Your task to perform on an android device: check data usage Image 0: 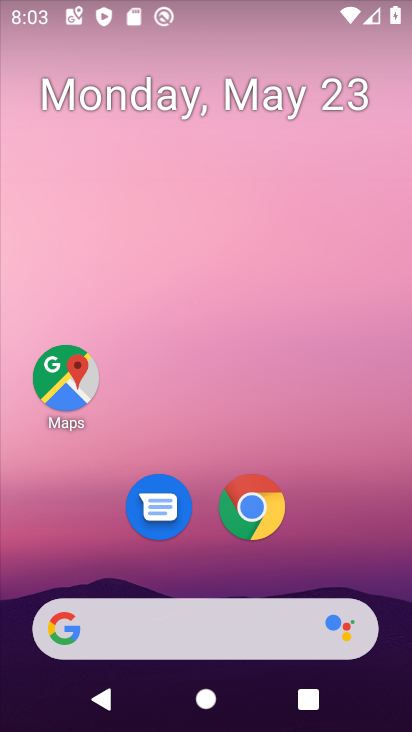
Step 0: drag from (368, 526) to (304, 172)
Your task to perform on an android device: check data usage Image 1: 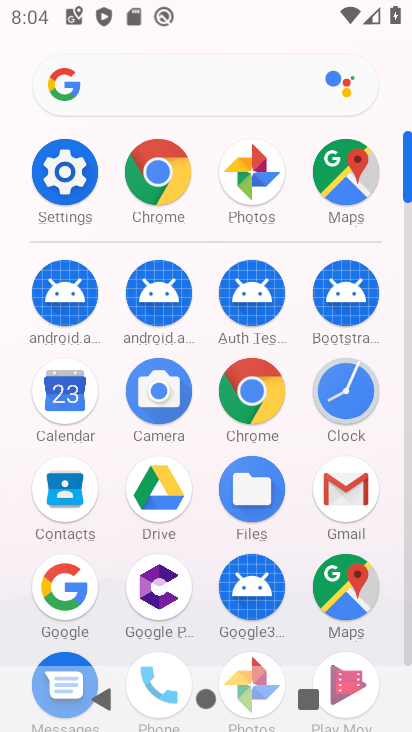
Step 1: click (40, 174)
Your task to perform on an android device: check data usage Image 2: 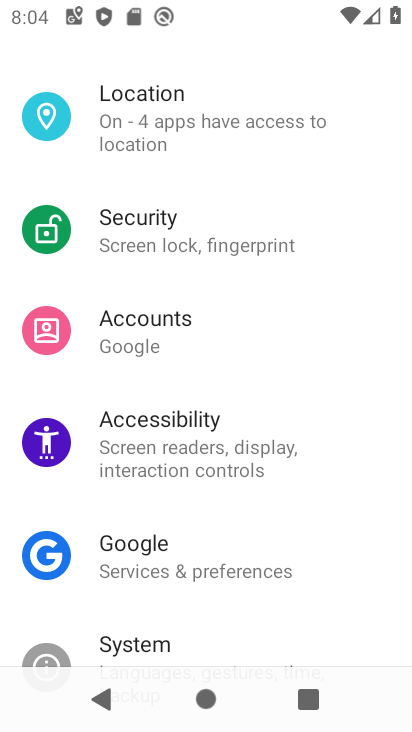
Step 2: drag from (247, 188) to (241, 581)
Your task to perform on an android device: check data usage Image 3: 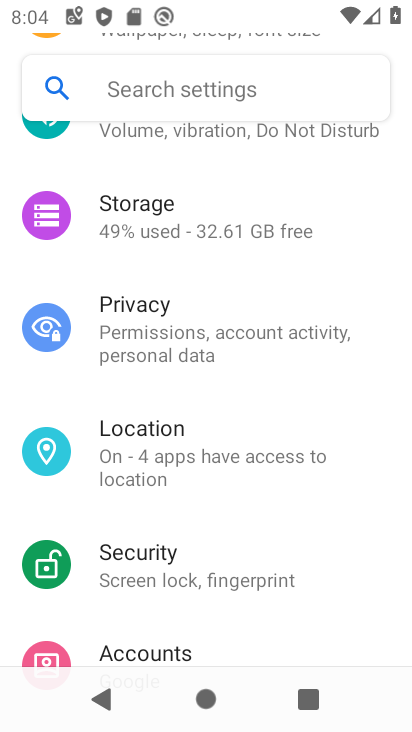
Step 3: drag from (225, 249) to (224, 574)
Your task to perform on an android device: check data usage Image 4: 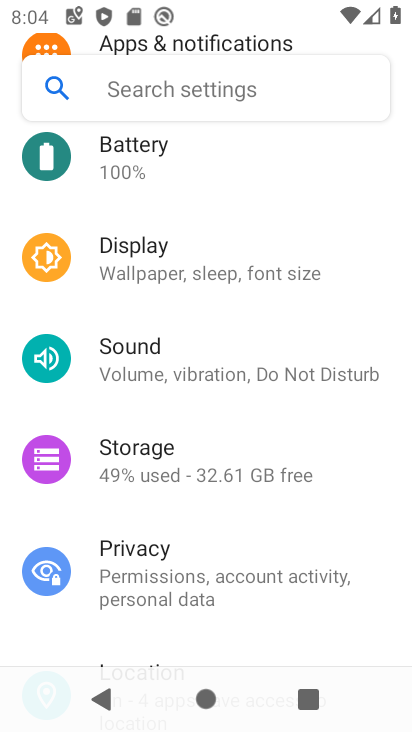
Step 4: drag from (252, 176) to (251, 579)
Your task to perform on an android device: check data usage Image 5: 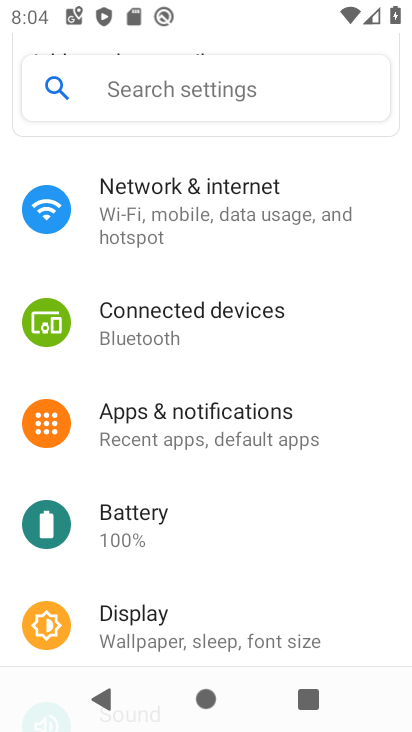
Step 5: click (241, 216)
Your task to perform on an android device: check data usage Image 6: 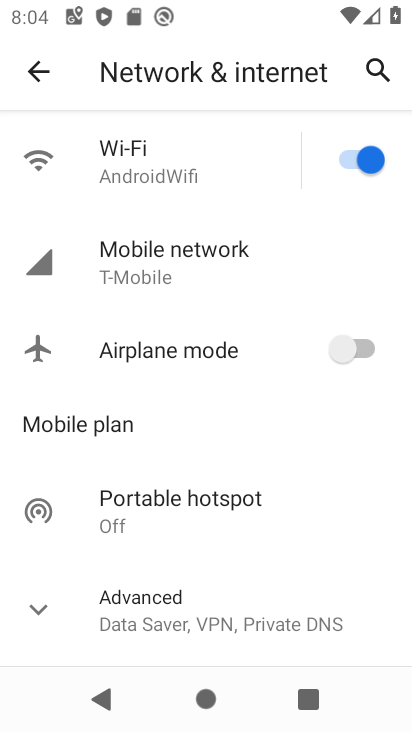
Step 6: click (207, 258)
Your task to perform on an android device: check data usage Image 7: 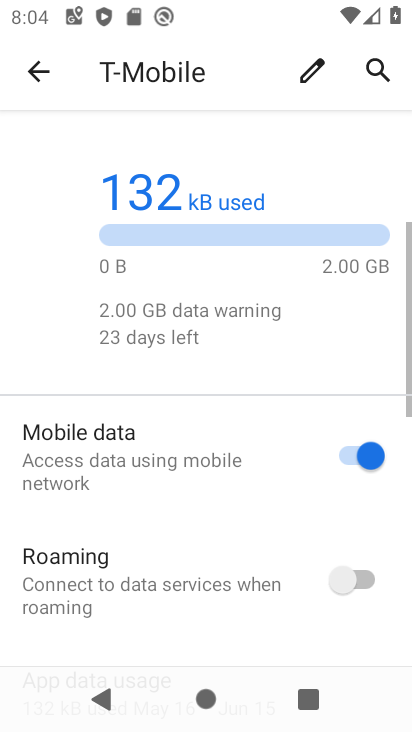
Step 7: task complete